Your task to perform on an android device: open app "Google Duo" (install if not already installed) Image 0: 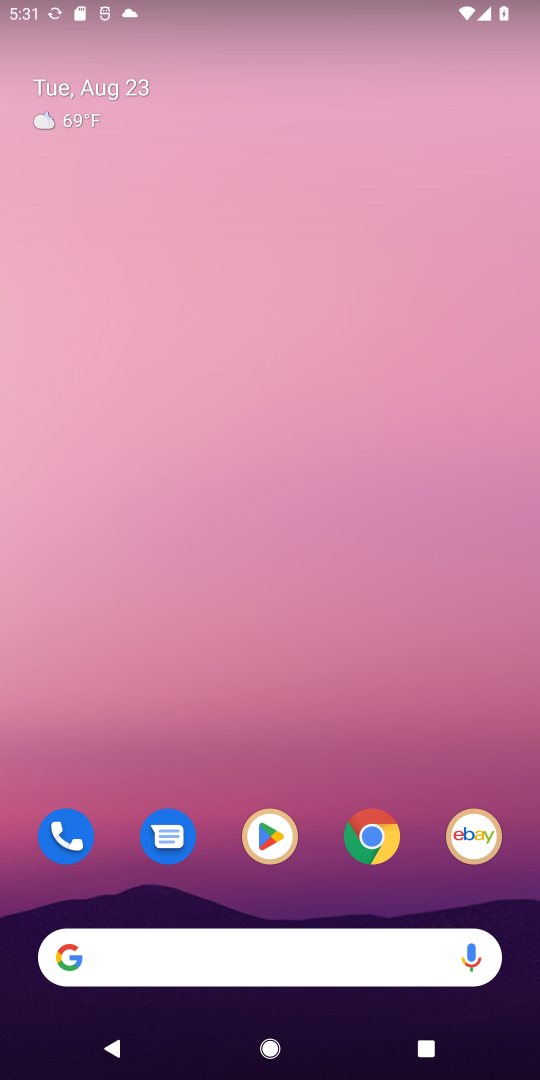
Step 0: click (268, 831)
Your task to perform on an android device: open app "Google Duo" (install if not already installed) Image 1: 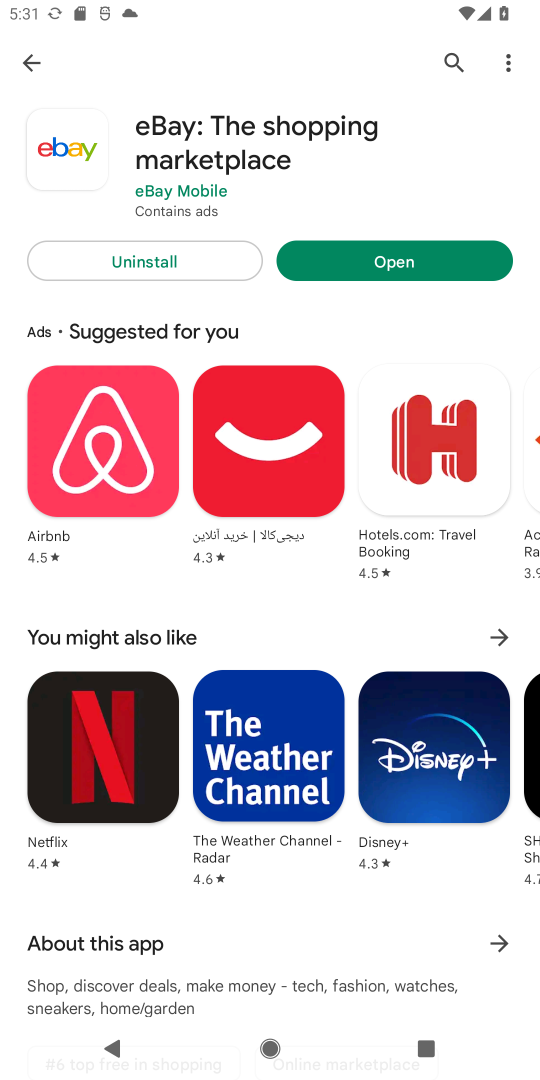
Step 1: click (456, 61)
Your task to perform on an android device: open app "Google Duo" (install if not already installed) Image 2: 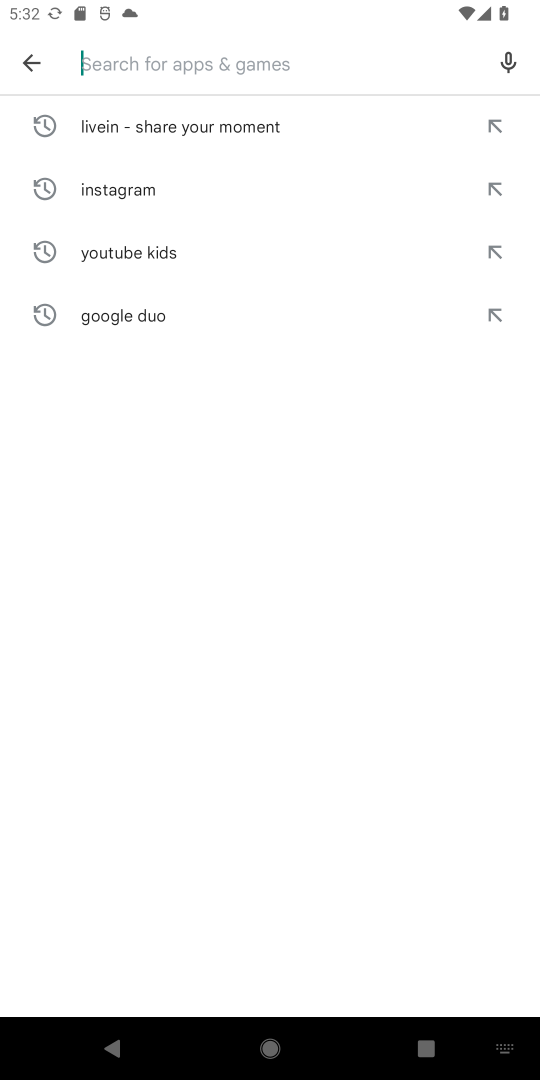
Step 2: type "Google Duo"
Your task to perform on an android device: open app "Google Duo" (install if not already installed) Image 3: 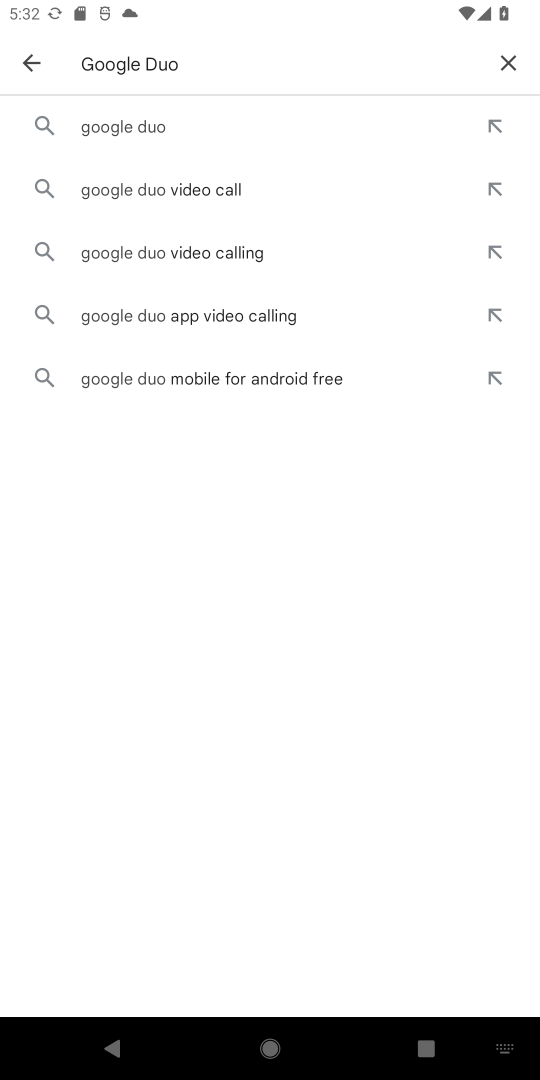
Step 3: click (131, 124)
Your task to perform on an android device: open app "Google Duo" (install if not already installed) Image 4: 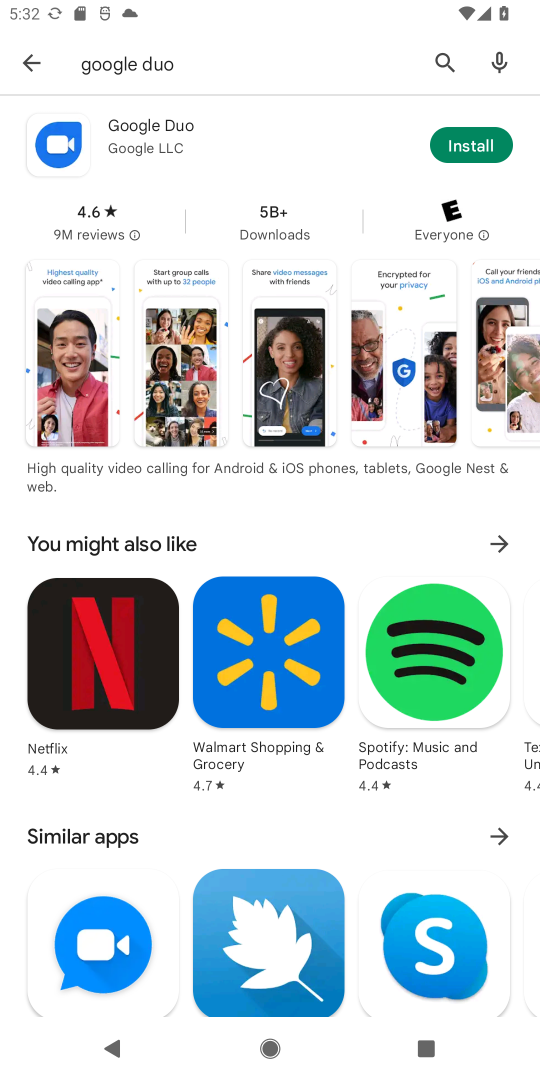
Step 4: click (213, 133)
Your task to perform on an android device: open app "Google Duo" (install if not already installed) Image 5: 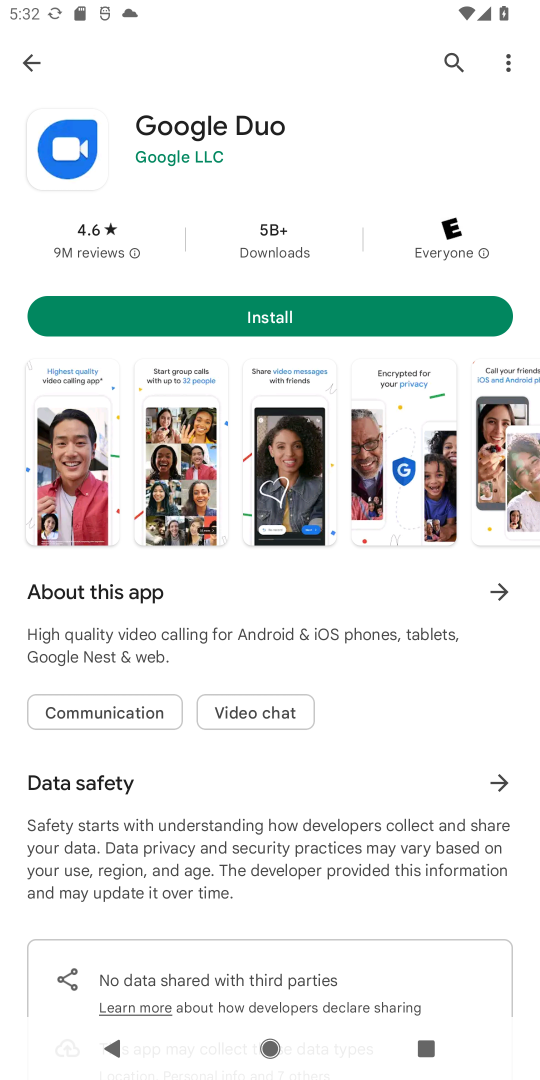
Step 5: click (260, 315)
Your task to perform on an android device: open app "Google Duo" (install if not already installed) Image 6: 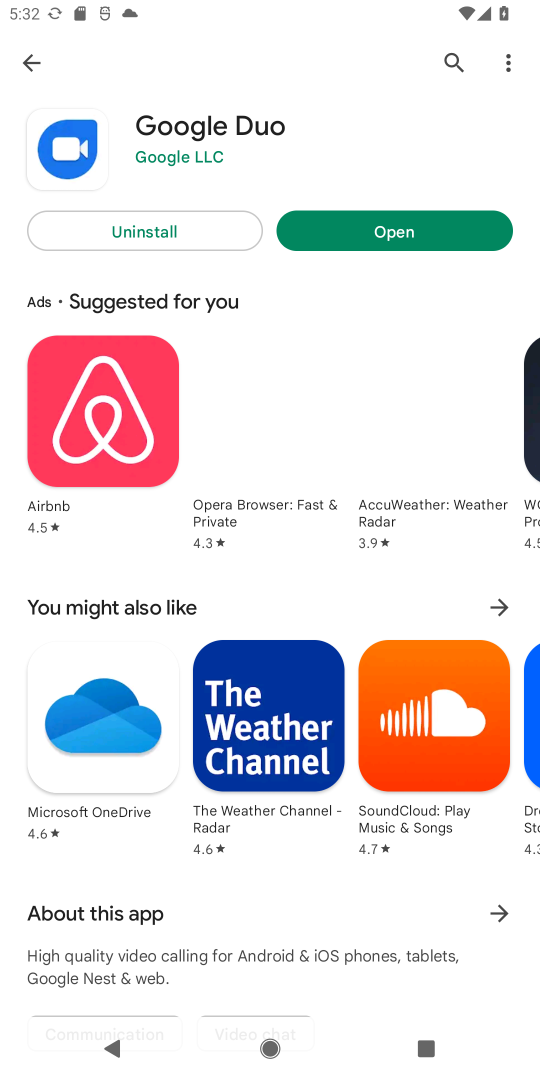
Step 6: click (398, 230)
Your task to perform on an android device: open app "Google Duo" (install if not already installed) Image 7: 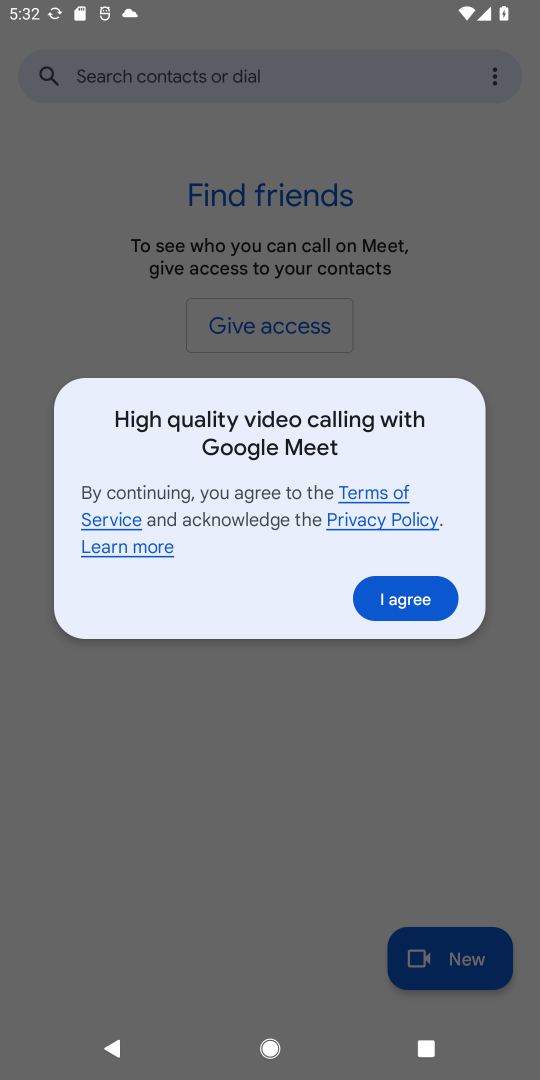
Step 7: click (387, 604)
Your task to perform on an android device: open app "Google Duo" (install if not already installed) Image 8: 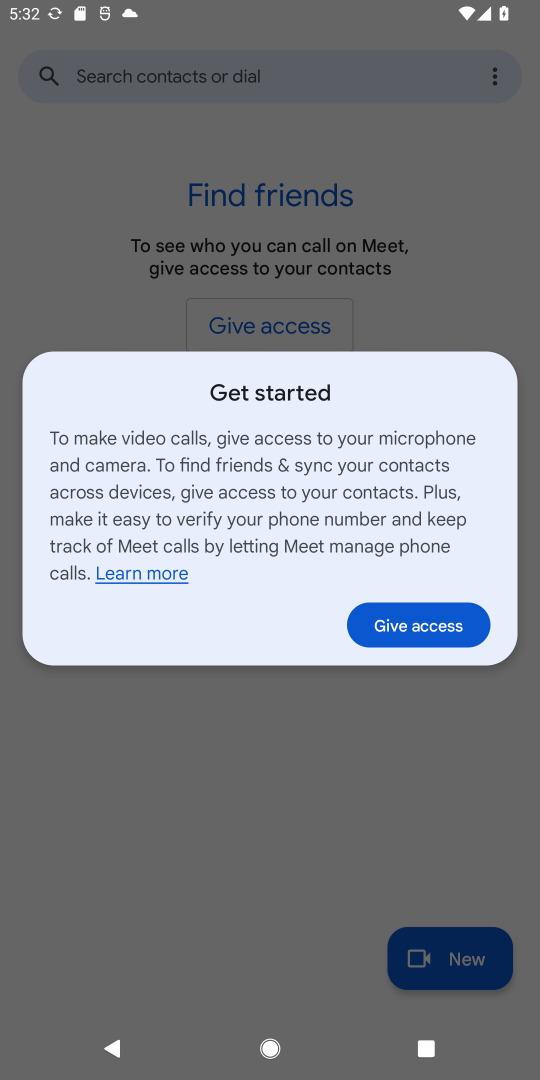
Step 8: task complete